Your task to perform on an android device: Open Google Chrome Image 0: 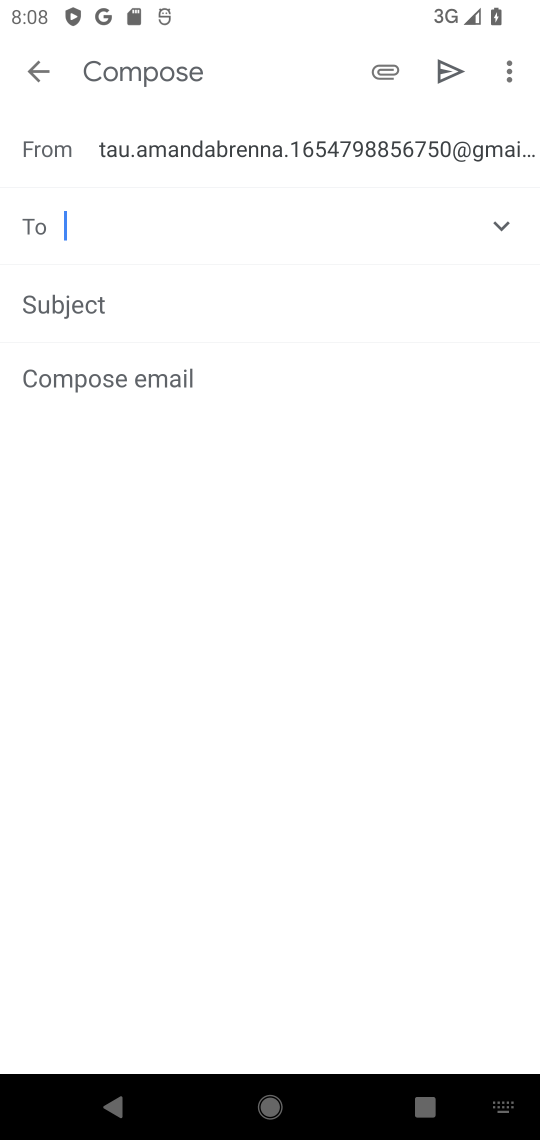
Step 0: press home button
Your task to perform on an android device: Open Google Chrome Image 1: 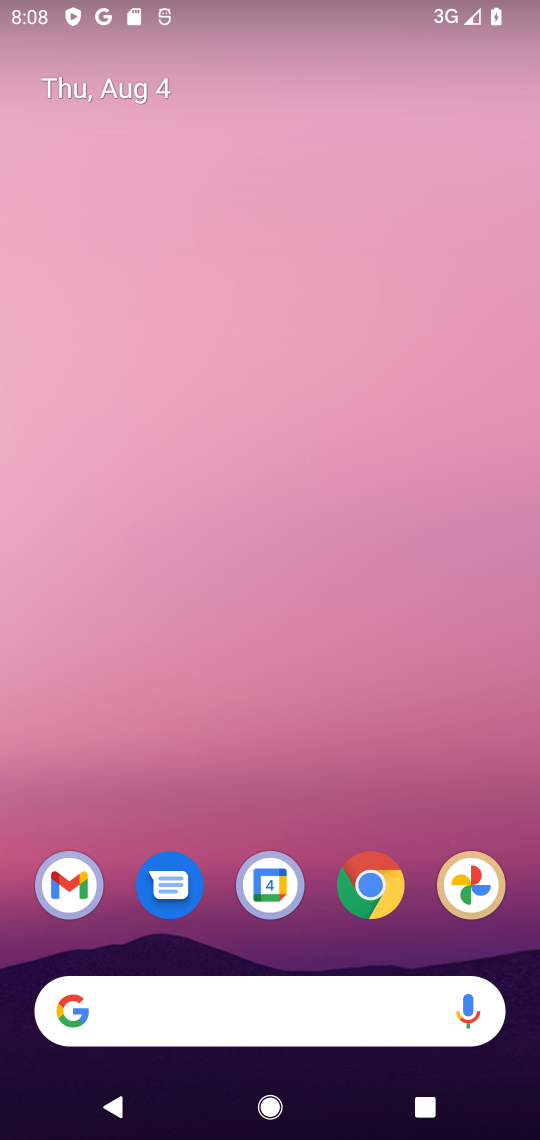
Step 1: click (364, 878)
Your task to perform on an android device: Open Google Chrome Image 2: 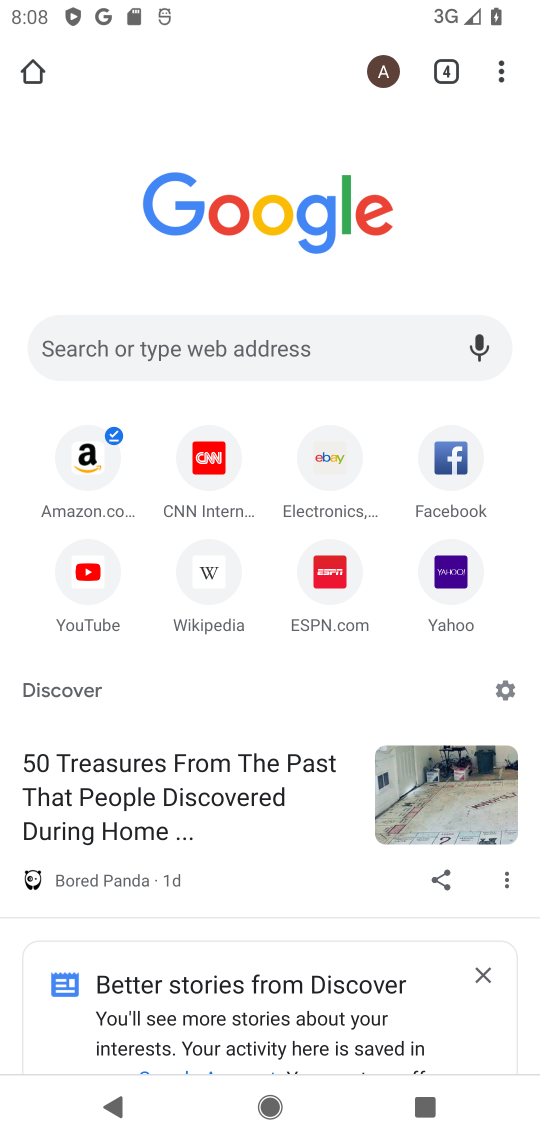
Step 2: task complete